Your task to perform on an android device: What is the recent news? Image 0: 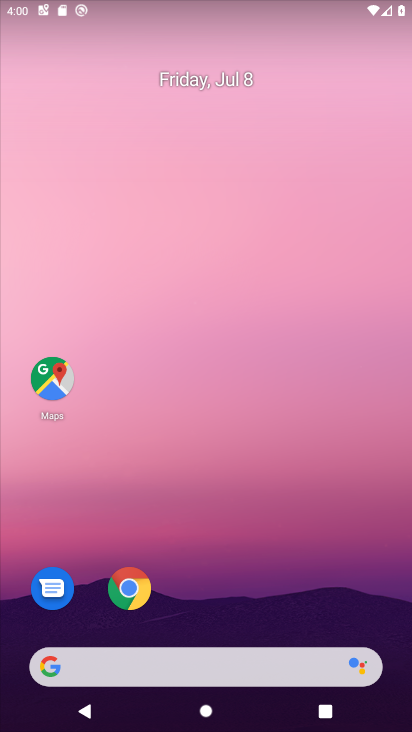
Step 0: drag from (213, 602) to (231, 198)
Your task to perform on an android device: What is the recent news? Image 1: 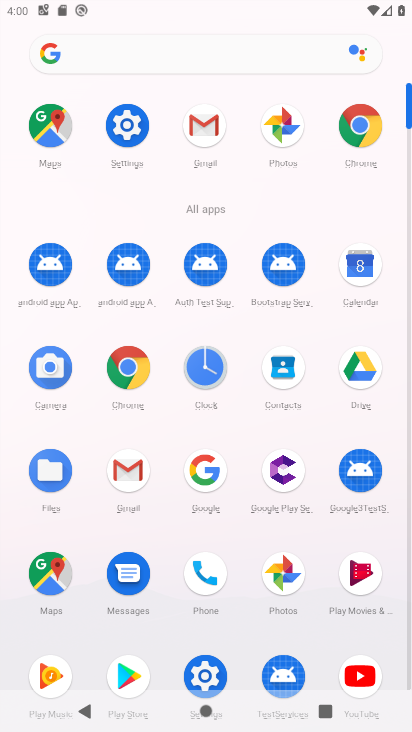
Step 1: click (241, 56)
Your task to perform on an android device: What is the recent news? Image 2: 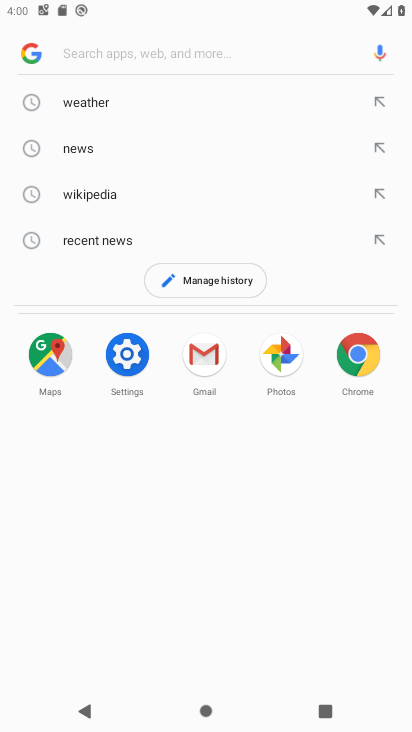
Step 2: type "recent news"
Your task to perform on an android device: What is the recent news? Image 3: 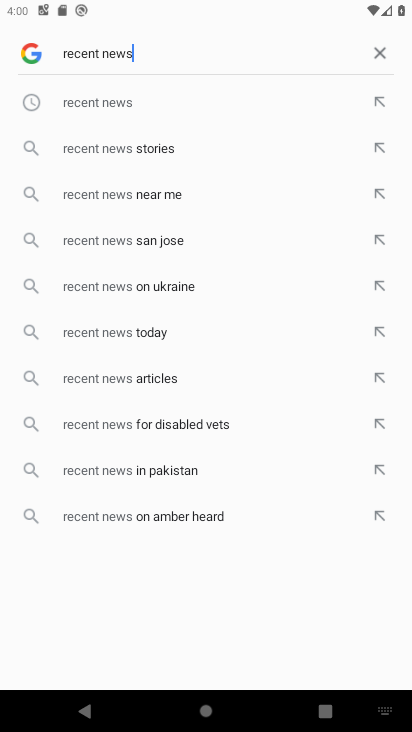
Step 3: click (150, 56)
Your task to perform on an android device: What is the recent news? Image 4: 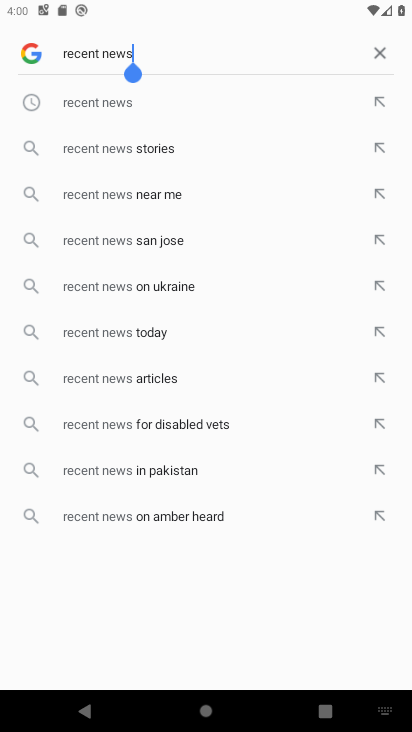
Step 4: click (131, 110)
Your task to perform on an android device: What is the recent news? Image 5: 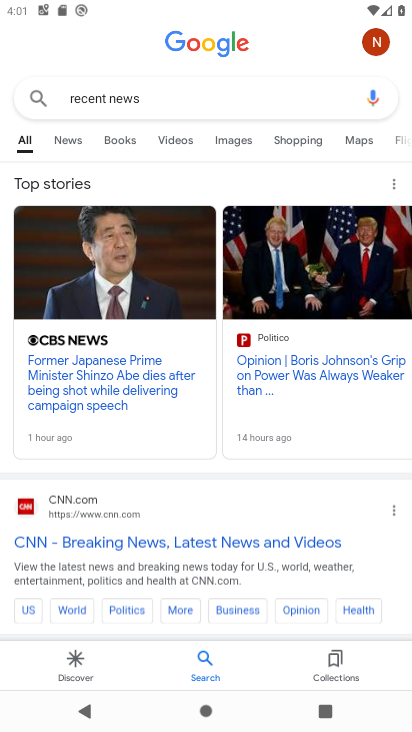
Step 5: task complete